Your task to perform on an android device: See recent photos Image 0: 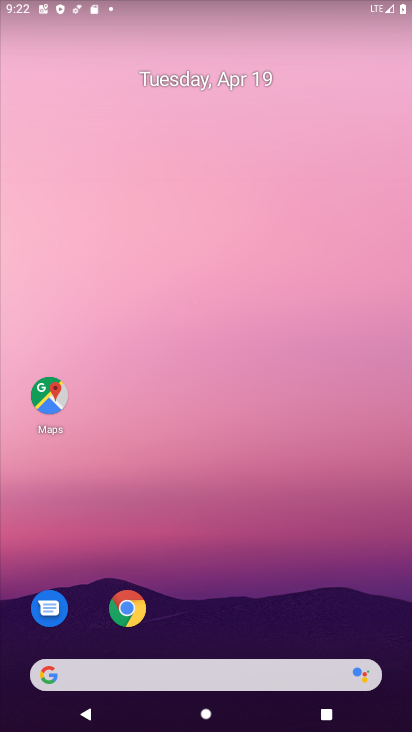
Step 0: drag from (383, 625) to (264, 43)
Your task to perform on an android device: See recent photos Image 1: 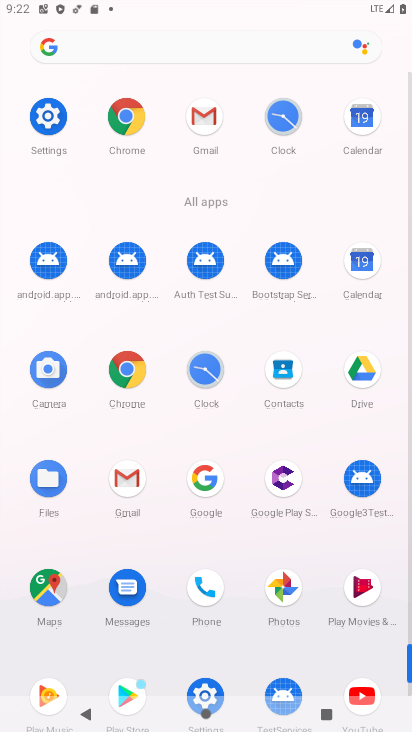
Step 1: click (281, 587)
Your task to perform on an android device: See recent photos Image 2: 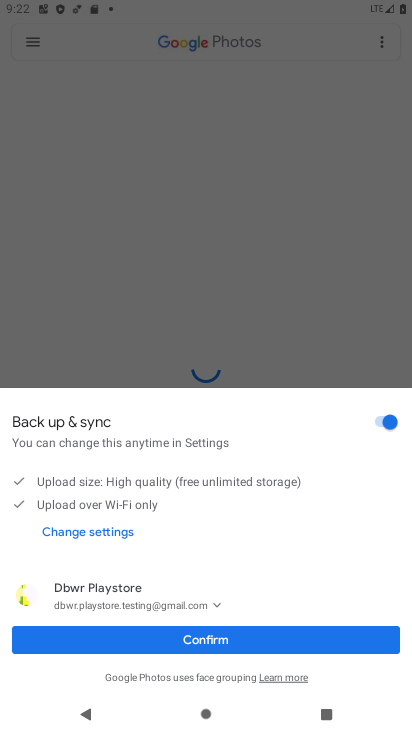
Step 2: click (190, 643)
Your task to perform on an android device: See recent photos Image 3: 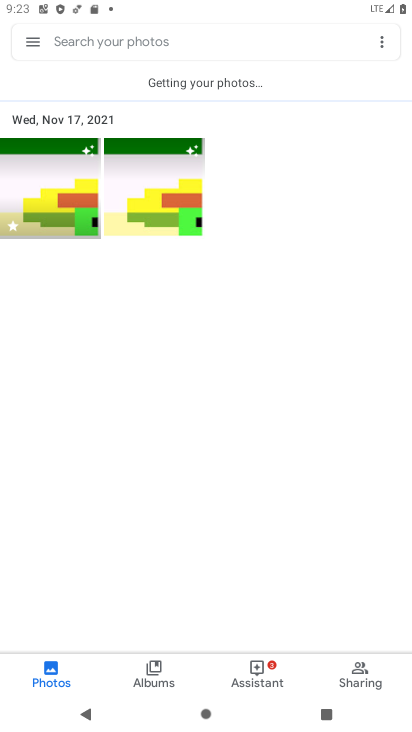
Step 3: click (49, 200)
Your task to perform on an android device: See recent photos Image 4: 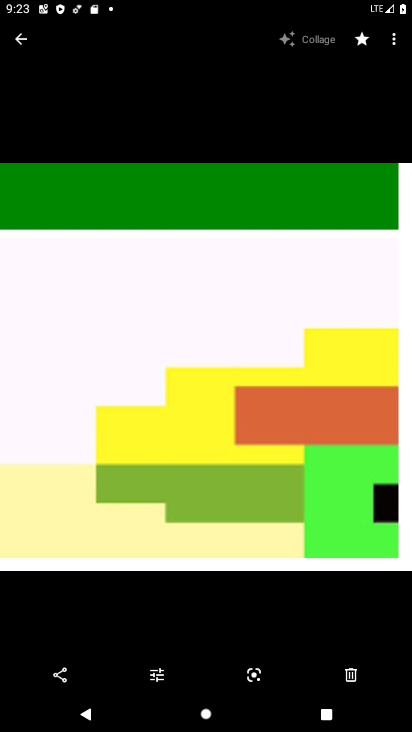
Step 4: task complete